Your task to perform on an android device: Search for hotels in Los Angeles Image 0: 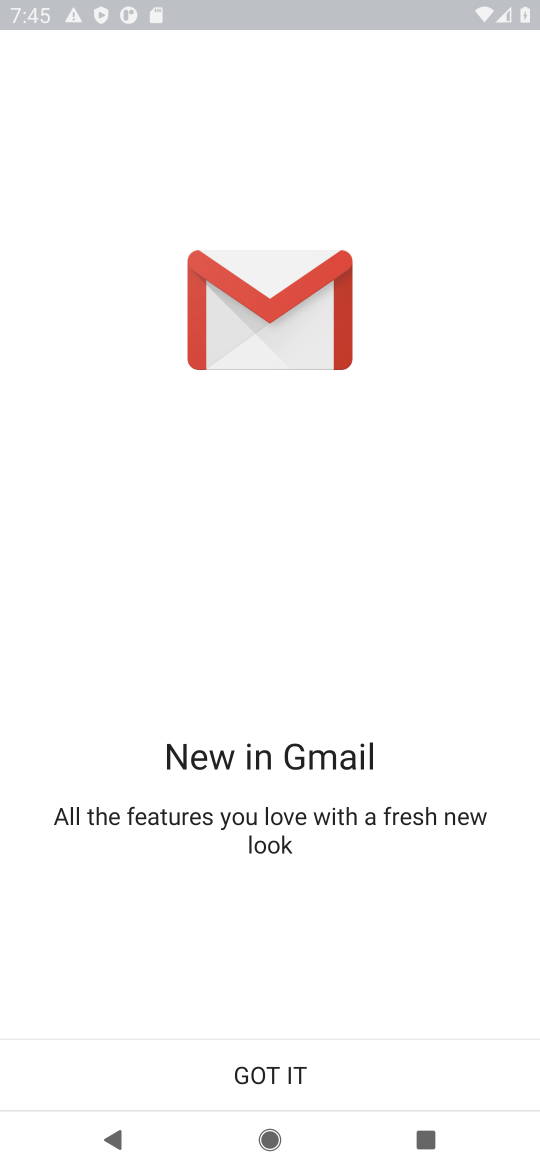
Step 0: drag from (317, 997) to (288, 320)
Your task to perform on an android device: Search for hotels in Los Angeles Image 1: 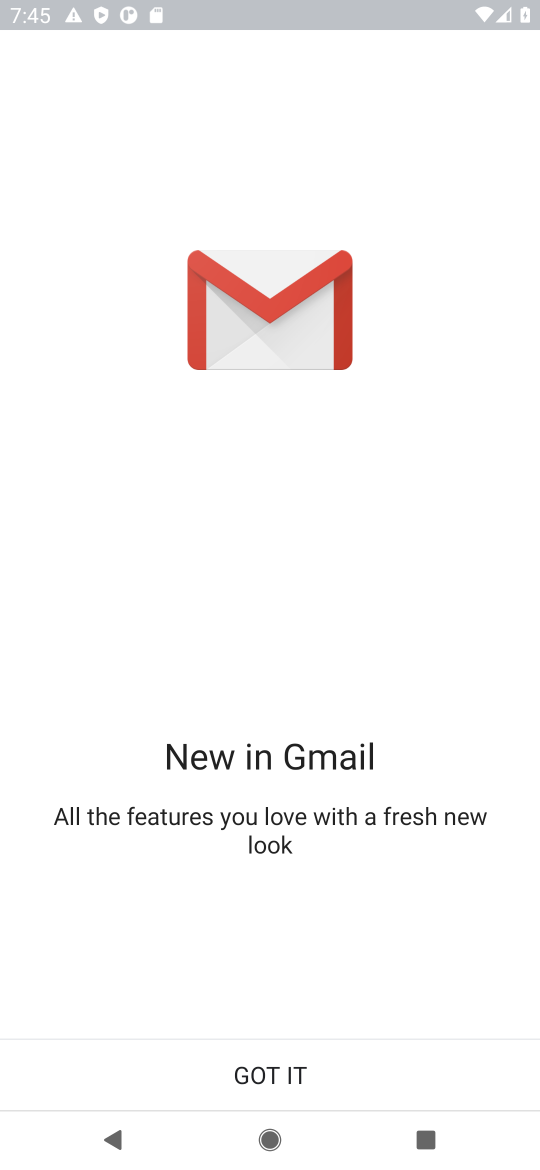
Step 1: press home button
Your task to perform on an android device: Search for hotels in Los Angeles Image 2: 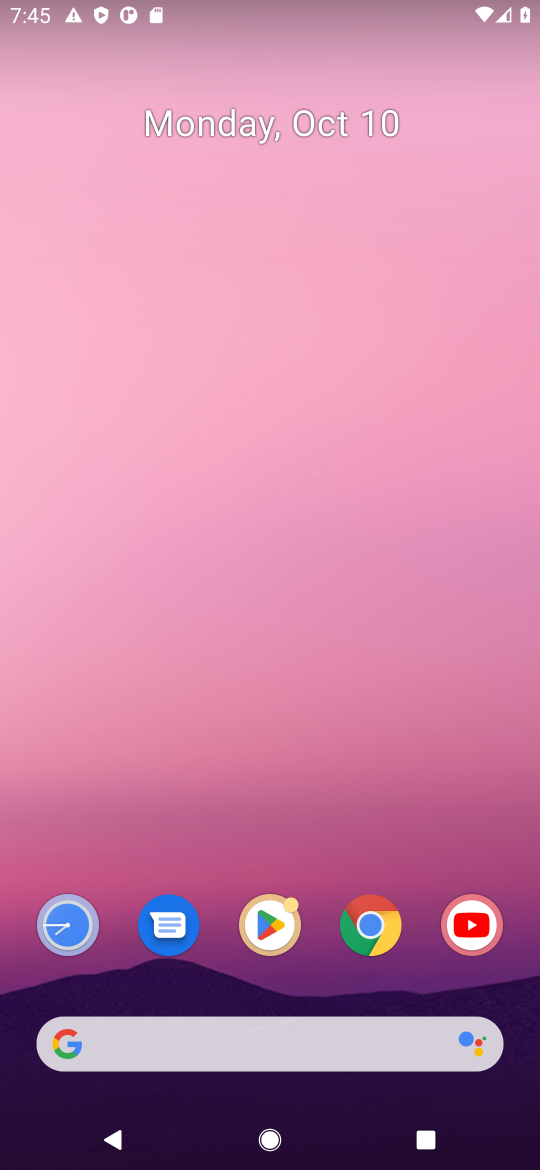
Step 2: drag from (323, 1005) to (276, 104)
Your task to perform on an android device: Search for hotels in Los Angeles Image 3: 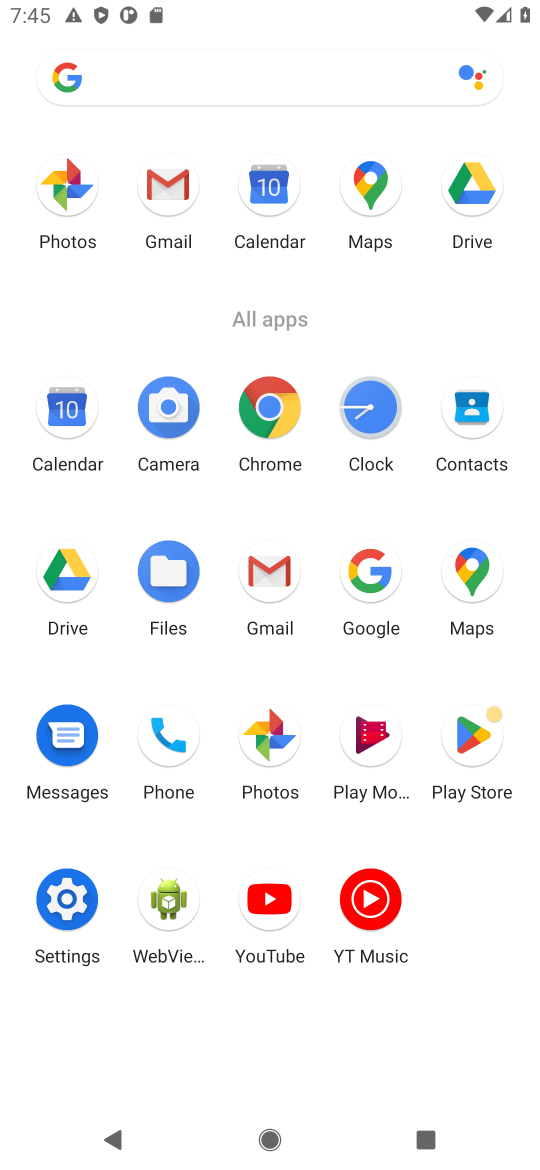
Step 3: click (277, 413)
Your task to perform on an android device: Search for hotels in Los Angeles Image 4: 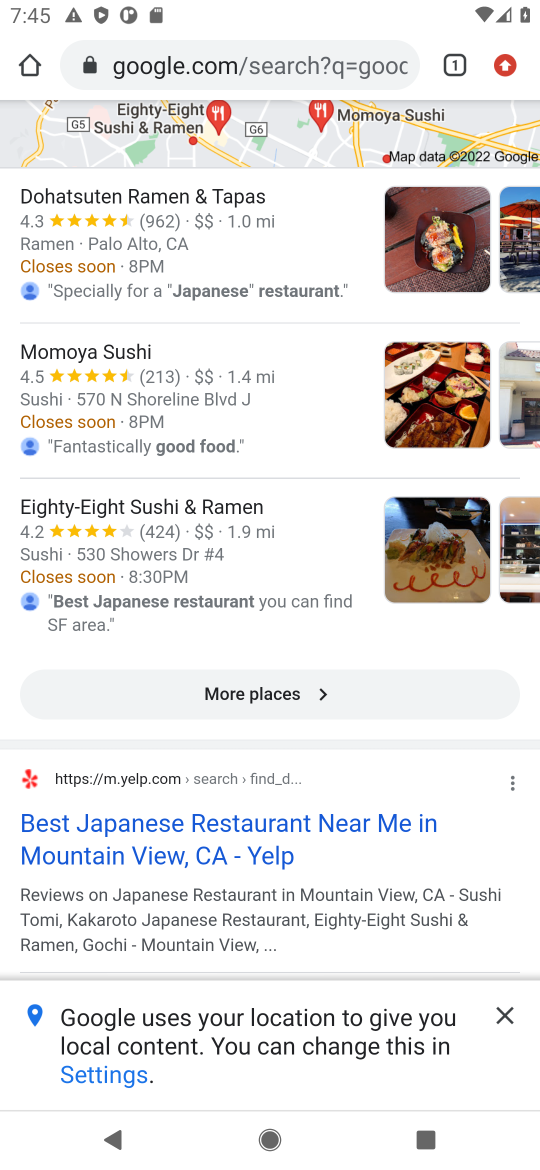
Step 4: drag from (295, 97) to (211, 772)
Your task to perform on an android device: Search for hotels in Los Angeles Image 5: 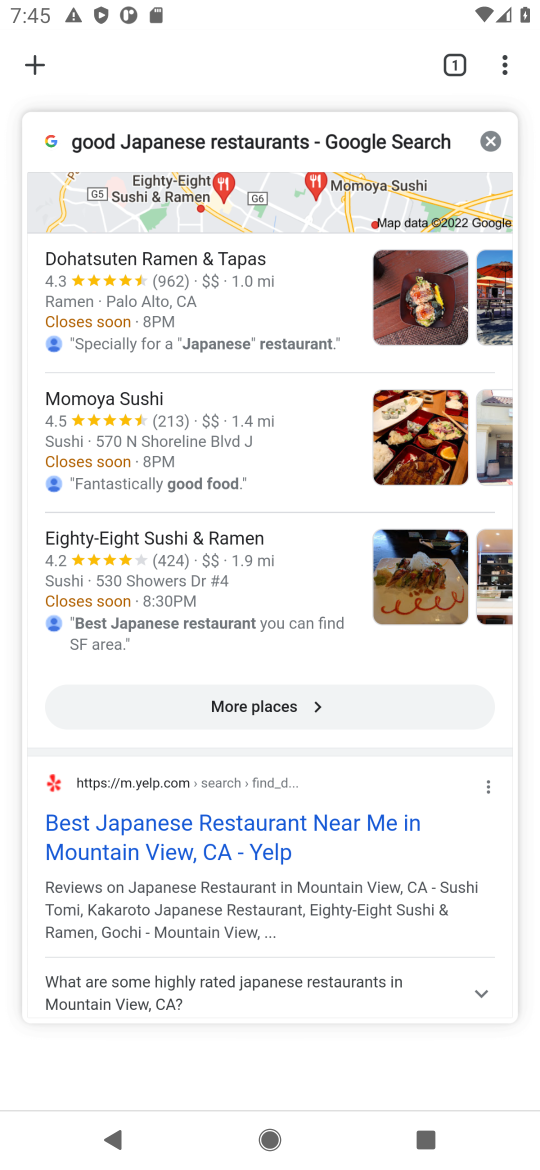
Step 5: click (148, 407)
Your task to perform on an android device: Search for hotels in Los Angeles Image 6: 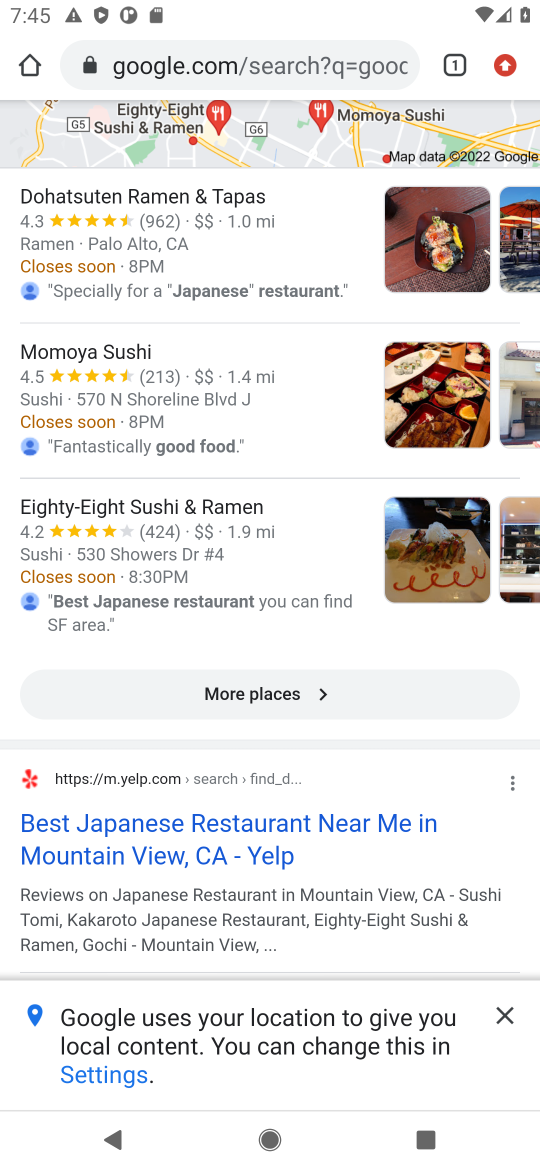
Step 6: click (259, 55)
Your task to perform on an android device: Search for hotels in Los Angeles Image 7: 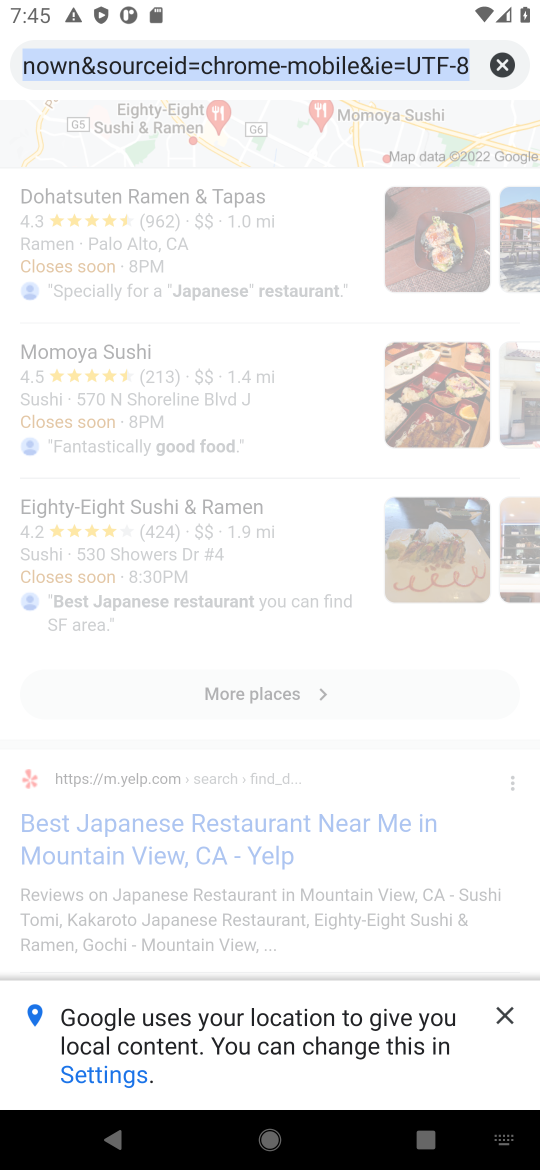
Step 7: type "hotels in Los Angeles"
Your task to perform on an android device: Search for hotels in Los Angeles Image 8: 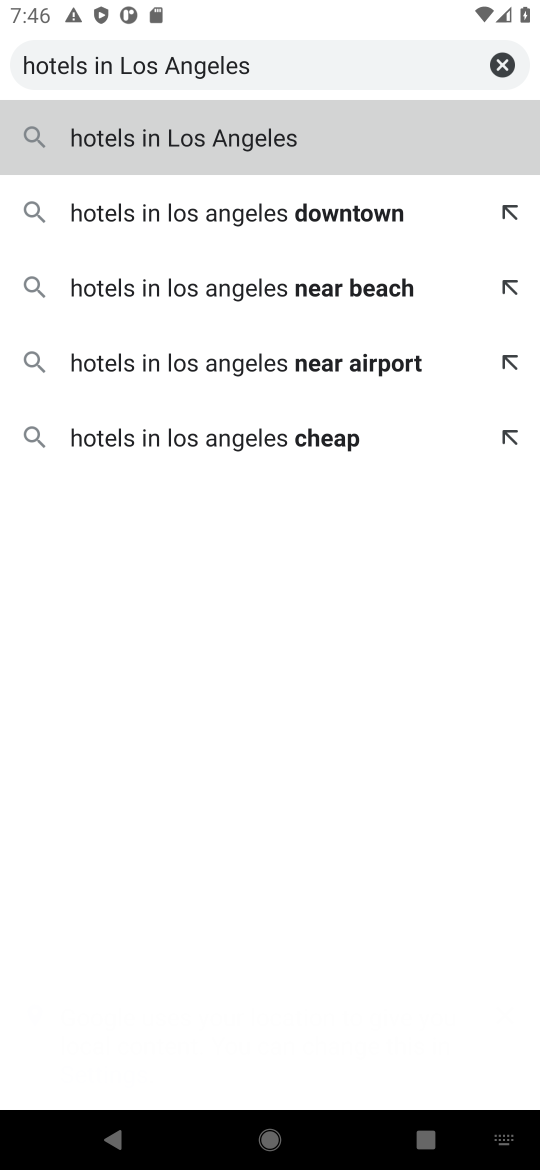
Step 8: press enter
Your task to perform on an android device: Search for hotels in Los Angeles Image 9: 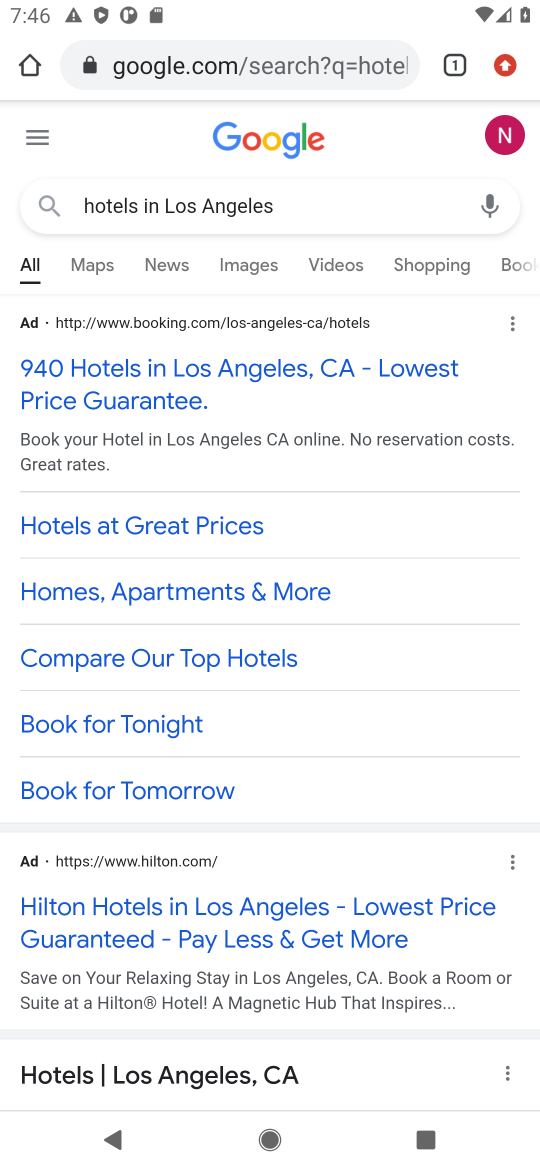
Step 9: task complete